Your task to perform on an android device: Open Google Maps and go to "Timeline" Image 0: 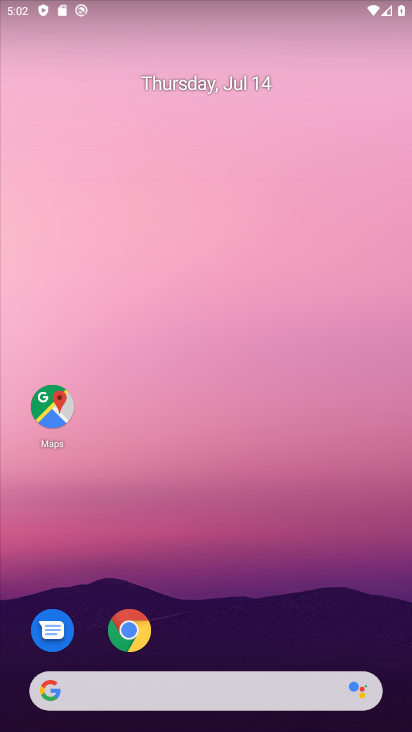
Step 0: press home button
Your task to perform on an android device: Open Google Maps and go to "Timeline" Image 1: 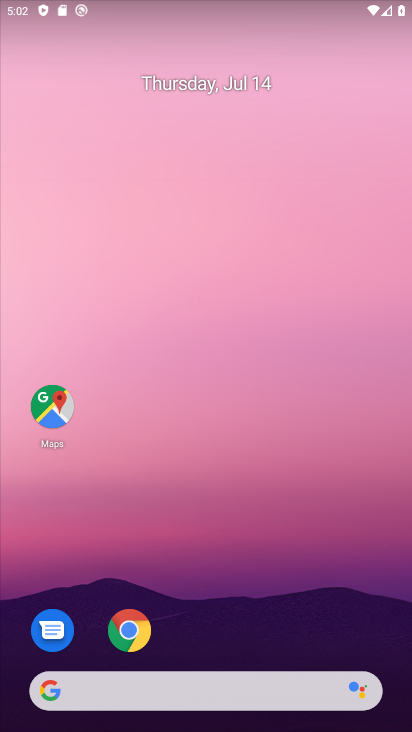
Step 1: drag from (255, 634) to (220, 219)
Your task to perform on an android device: Open Google Maps and go to "Timeline" Image 2: 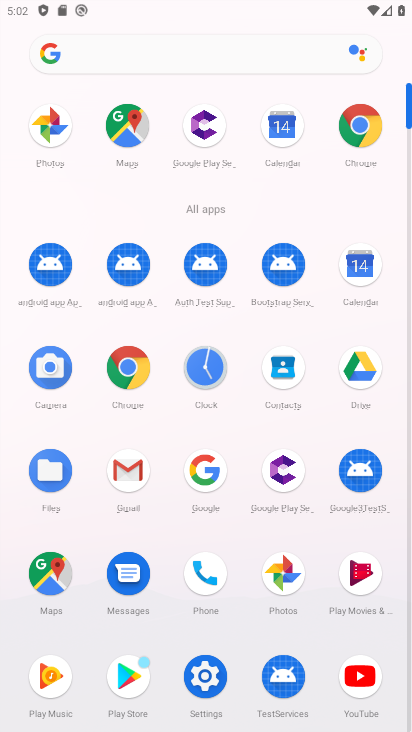
Step 2: click (55, 575)
Your task to perform on an android device: Open Google Maps and go to "Timeline" Image 3: 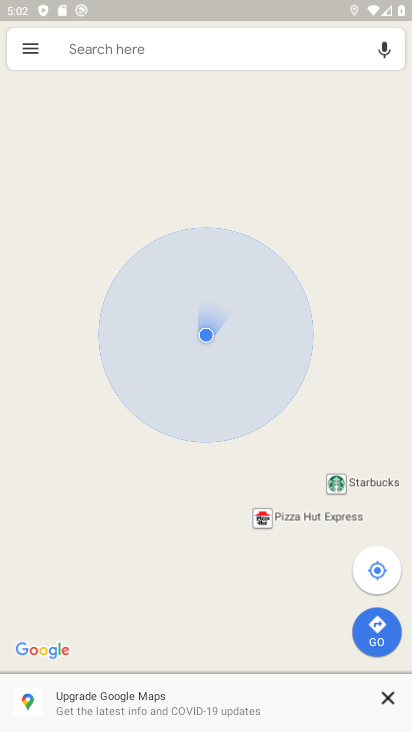
Step 3: click (31, 47)
Your task to perform on an android device: Open Google Maps and go to "Timeline" Image 4: 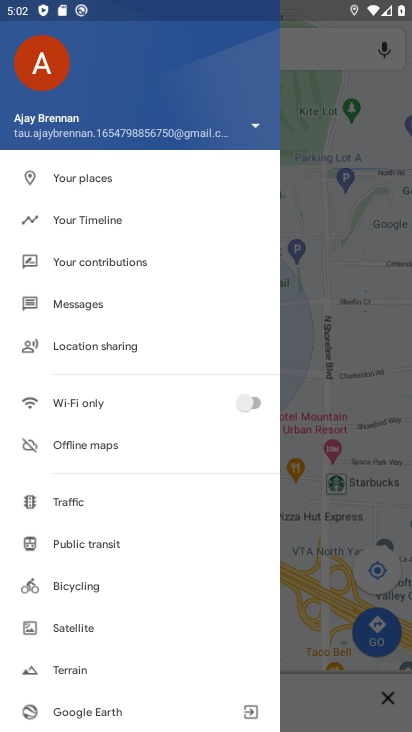
Step 4: click (88, 214)
Your task to perform on an android device: Open Google Maps and go to "Timeline" Image 5: 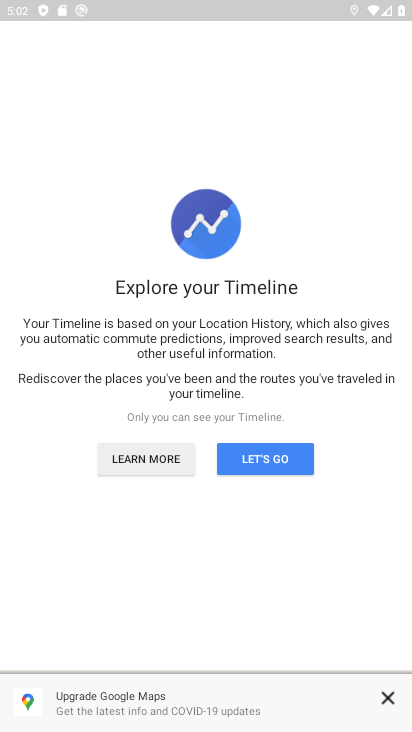
Step 5: click (257, 461)
Your task to perform on an android device: Open Google Maps and go to "Timeline" Image 6: 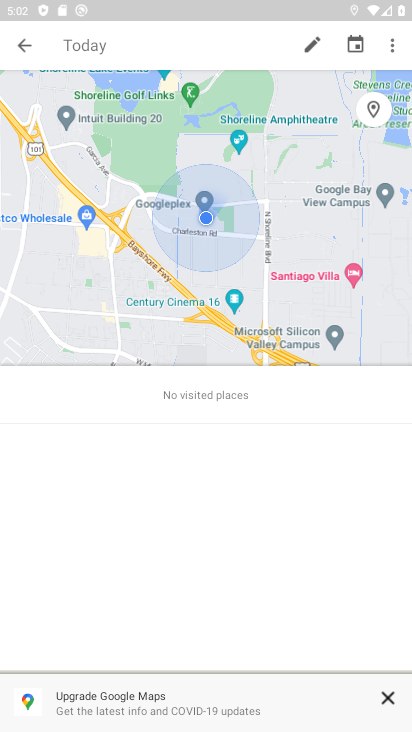
Step 6: task complete